Your task to perform on an android device: turn on bluetooth scan Image 0: 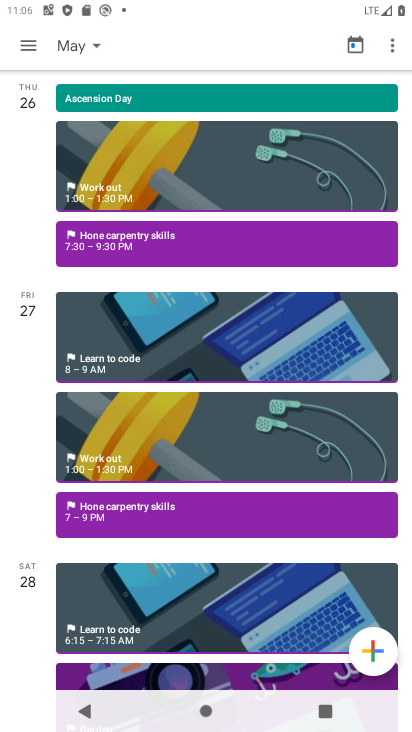
Step 0: press home button
Your task to perform on an android device: turn on bluetooth scan Image 1: 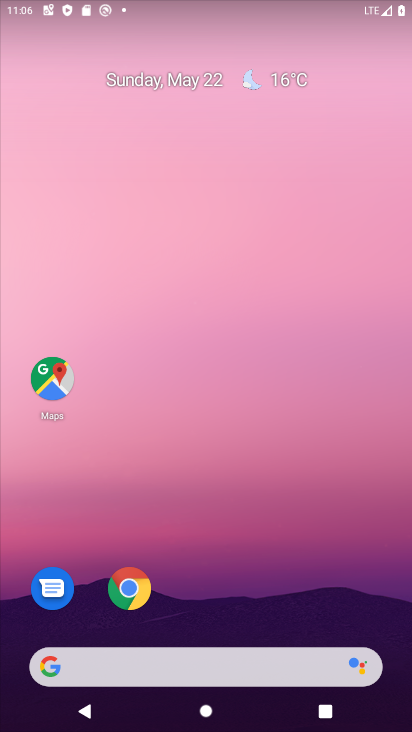
Step 1: drag from (224, 605) to (228, 171)
Your task to perform on an android device: turn on bluetooth scan Image 2: 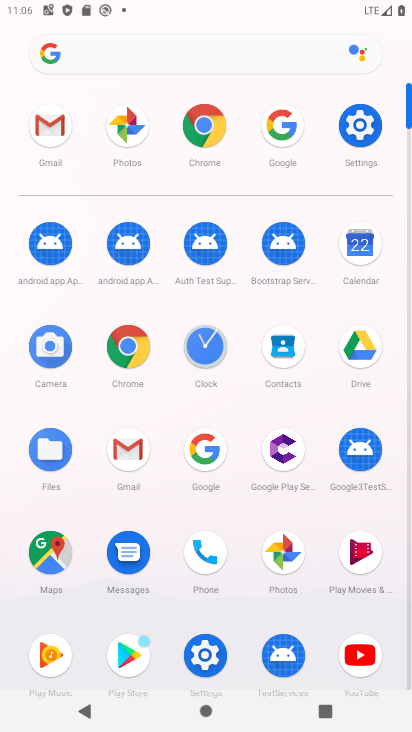
Step 2: click (350, 143)
Your task to perform on an android device: turn on bluetooth scan Image 3: 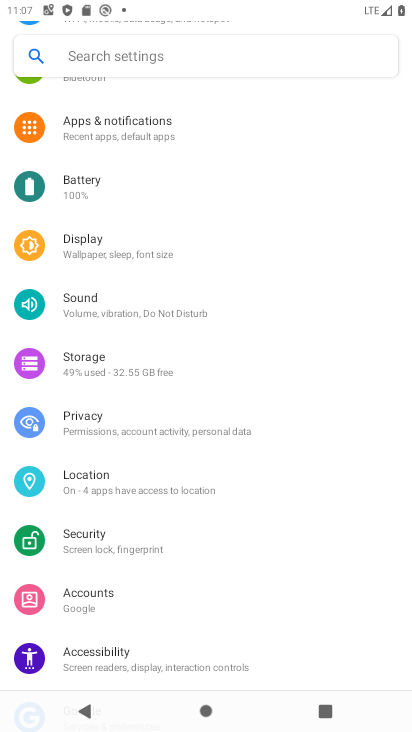
Step 3: click (147, 485)
Your task to perform on an android device: turn on bluetooth scan Image 4: 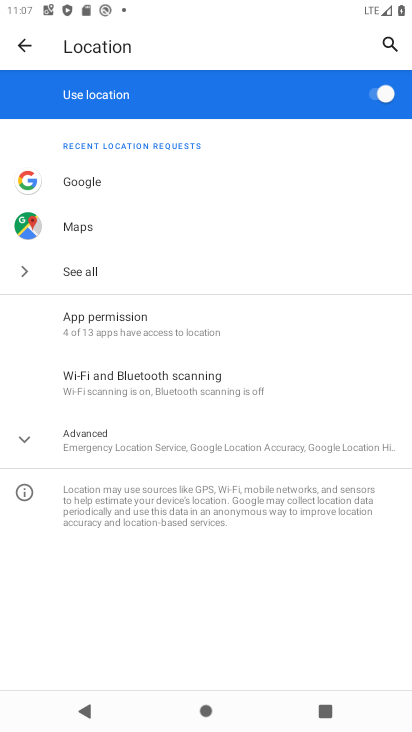
Step 4: click (245, 393)
Your task to perform on an android device: turn on bluetooth scan Image 5: 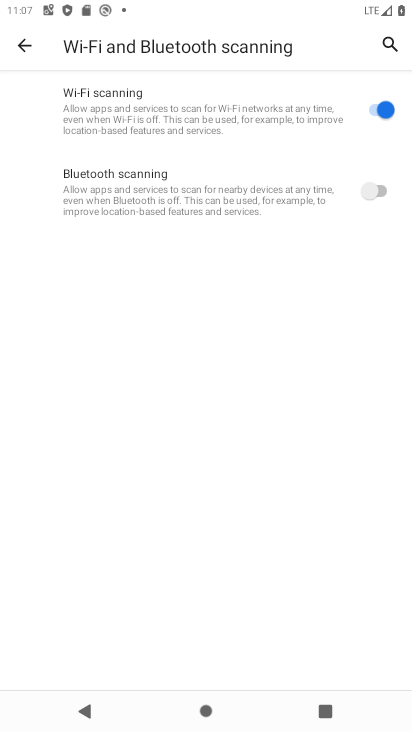
Step 5: click (390, 189)
Your task to perform on an android device: turn on bluetooth scan Image 6: 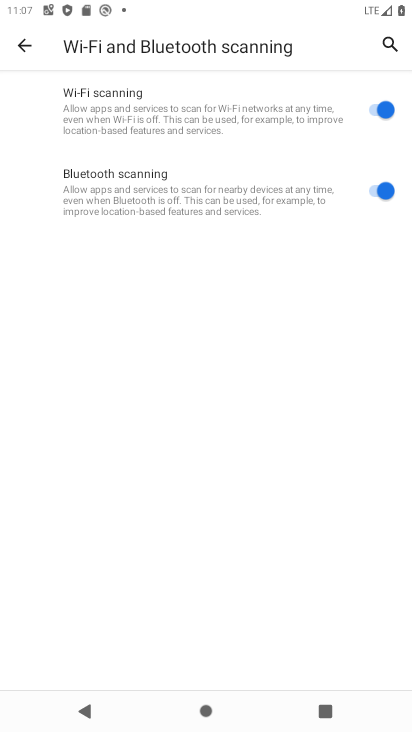
Step 6: task complete